Your task to perform on an android device: Open Yahoo.com Image 0: 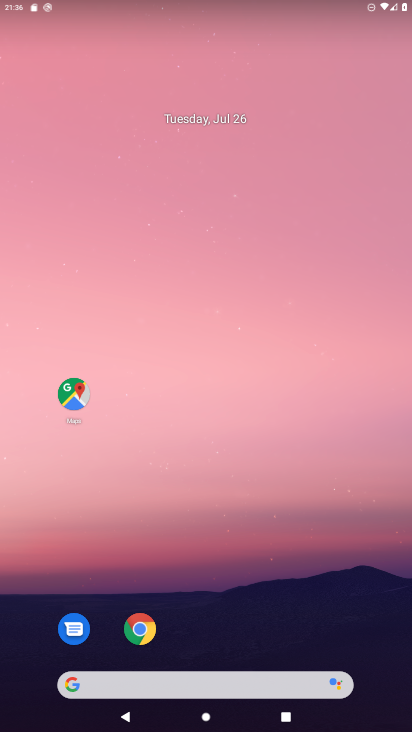
Step 0: click (150, 630)
Your task to perform on an android device: Open Yahoo.com Image 1: 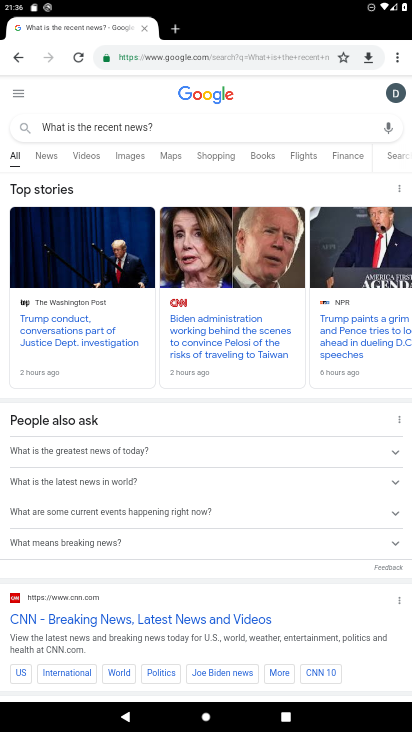
Step 1: click (174, 54)
Your task to perform on an android device: Open Yahoo.com Image 2: 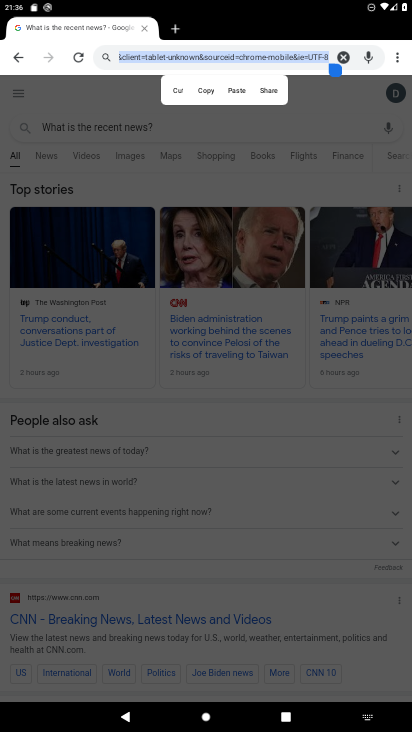
Step 2: type "Yahoo.com"
Your task to perform on an android device: Open Yahoo.com Image 3: 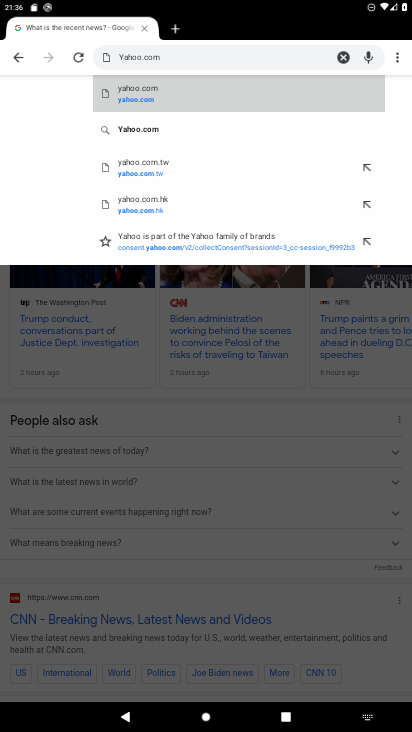
Step 3: click (130, 98)
Your task to perform on an android device: Open Yahoo.com Image 4: 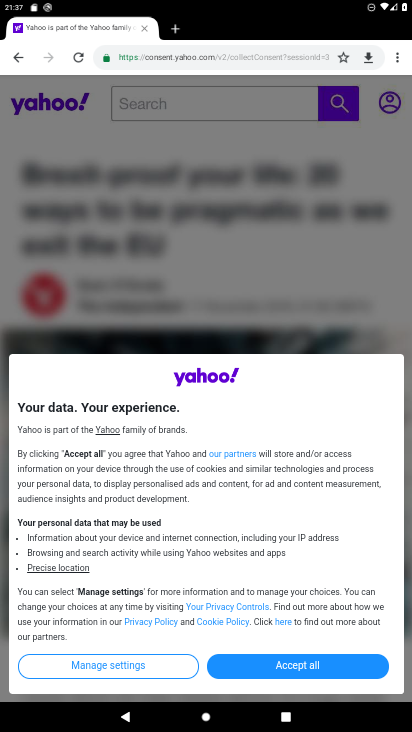
Step 4: click (334, 666)
Your task to perform on an android device: Open Yahoo.com Image 5: 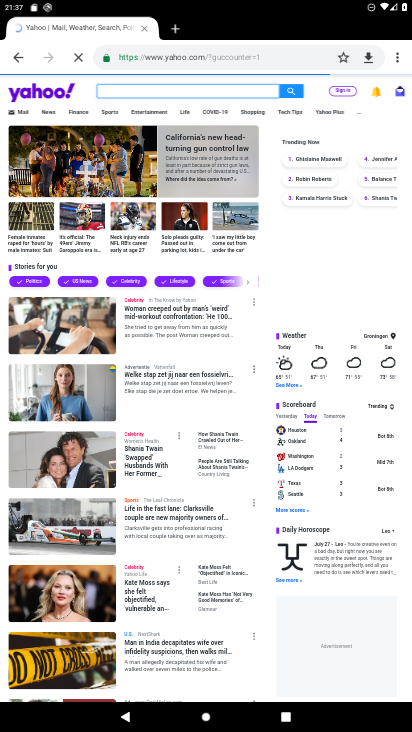
Step 5: task complete